Your task to perform on an android device: manage bookmarks in the chrome app Image 0: 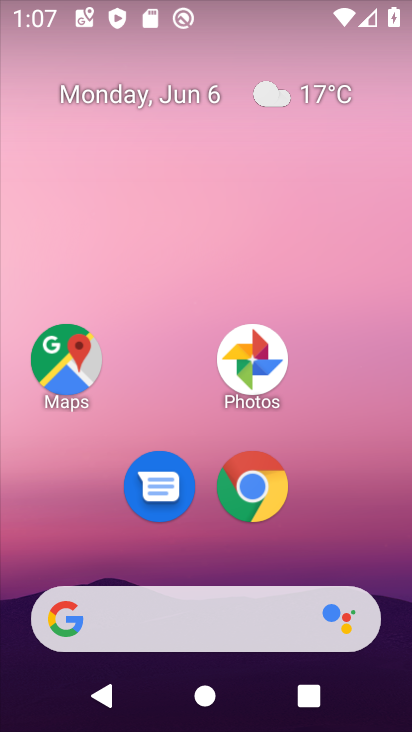
Step 0: click (260, 513)
Your task to perform on an android device: manage bookmarks in the chrome app Image 1: 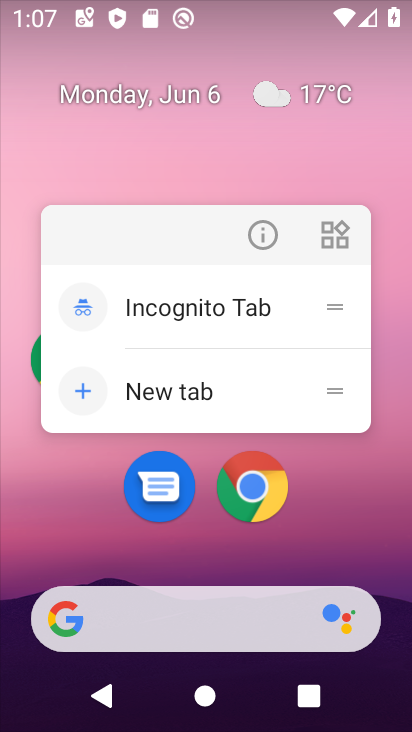
Step 1: click (264, 503)
Your task to perform on an android device: manage bookmarks in the chrome app Image 2: 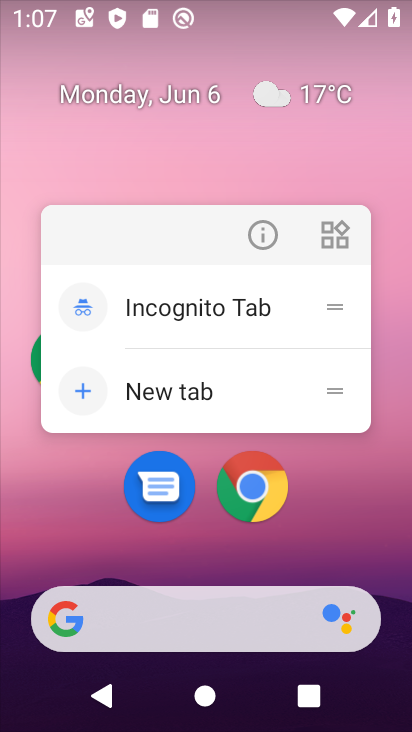
Step 2: click (267, 494)
Your task to perform on an android device: manage bookmarks in the chrome app Image 3: 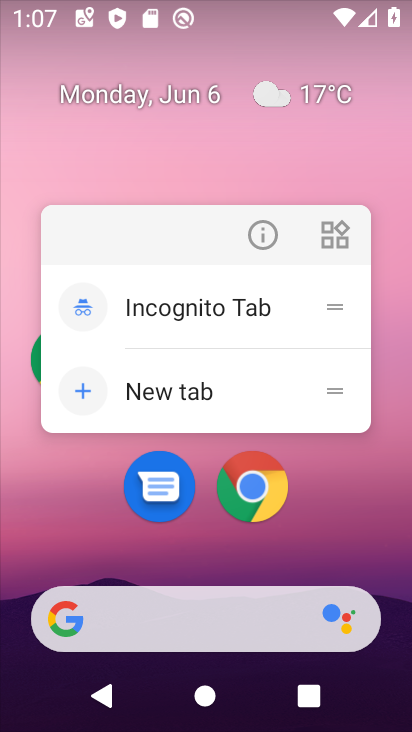
Step 3: click (272, 481)
Your task to perform on an android device: manage bookmarks in the chrome app Image 4: 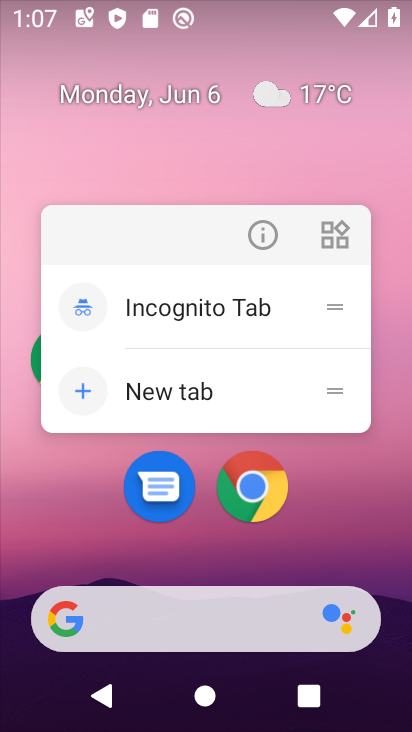
Step 4: click (248, 486)
Your task to perform on an android device: manage bookmarks in the chrome app Image 5: 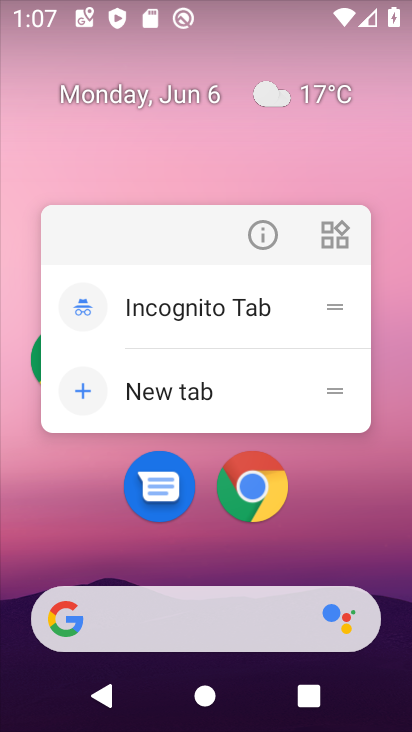
Step 5: click (249, 506)
Your task to perform on an android device: manage bookmarks in the chrome app Image 6: 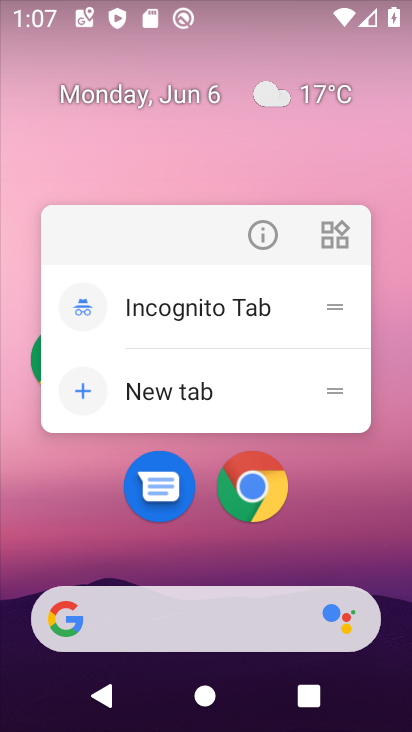
Step 6: click (250, 505)
Your task to perform on an android device: manage bookmarks in the chrome app Image 7: 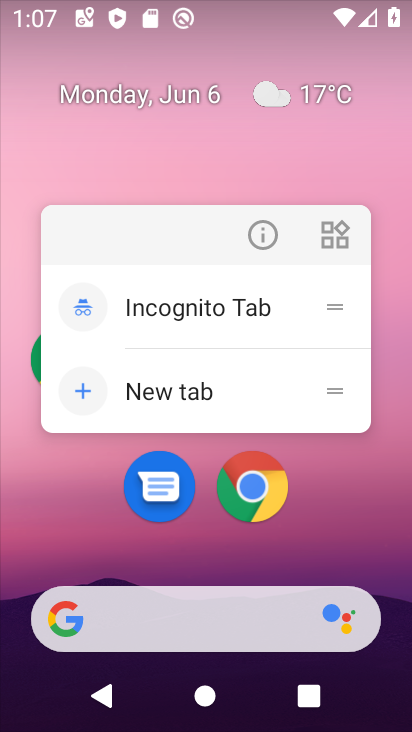
Step 7: click (264, 498)
Your task to perform on an android device: manage bookmarks in the chrome app Image 8: 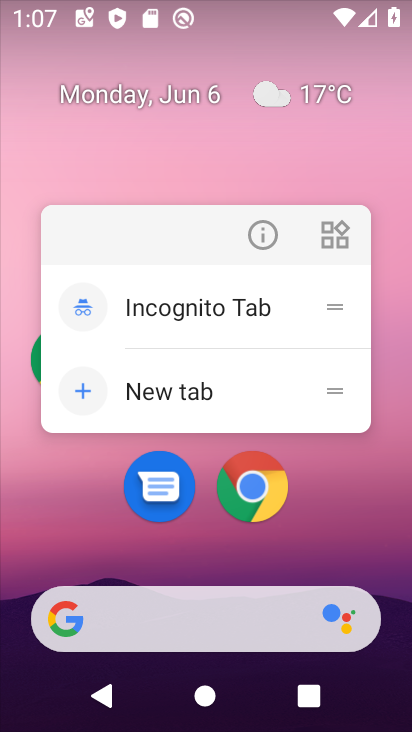
Step 8: click (275, 508)
Your task to perform on an android device: manage bookmarks in the chrome app Image 9: 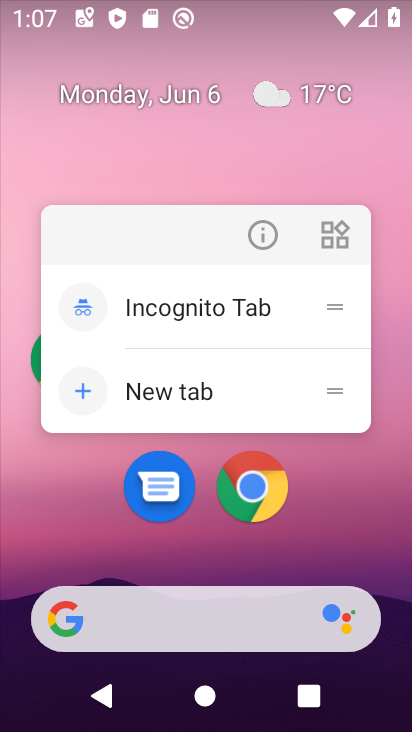
Step 9: click (274, 496)
Your task to perform on an android device: manage bookmarks in the chrome app Image 10: 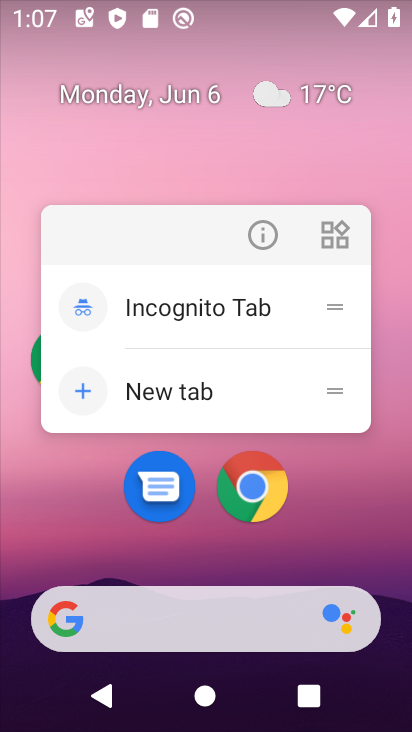
Step 10: click (264, 484)
Your task to perform on an android device: manage bookmarks in the chrome app Image 11: 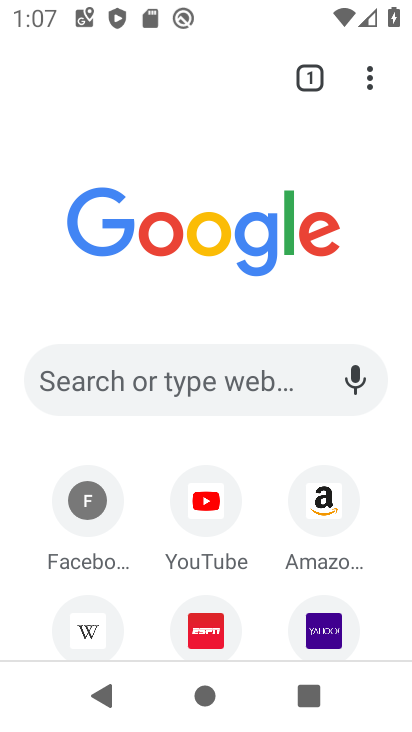
Step 11: drag from (381, 81) to (261, 323)
Your task to perform on an android device: manage bookmarks in the chrome app Image 12: 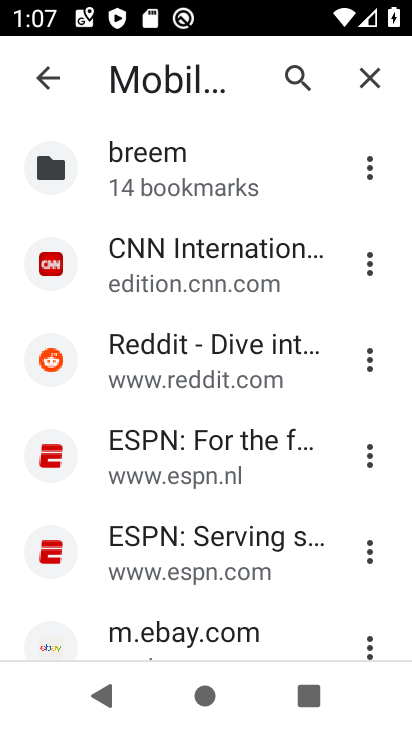
Step 12: click (237, 243)
Your task to perform on an android device: manage bookmarks in the chrome app Image 13: 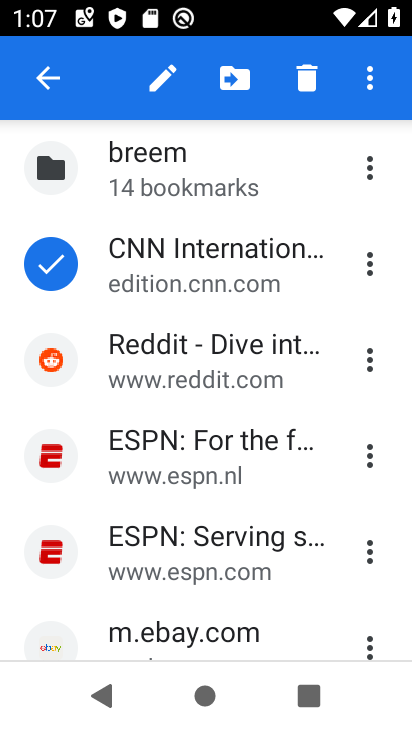
Step 13: click (188, 365)
Your task to perform on an android device: manage bookmarks in the chrome app Image 14: 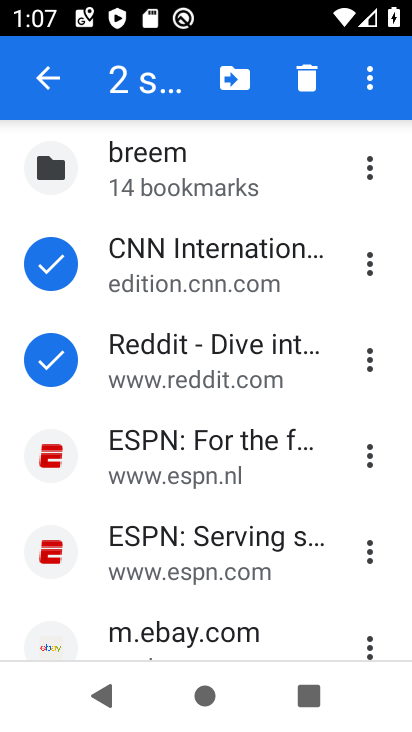
Step 14: click (195, 426)
Your task to perform on an android device: manage bookmarks in the chrome app Image 15: 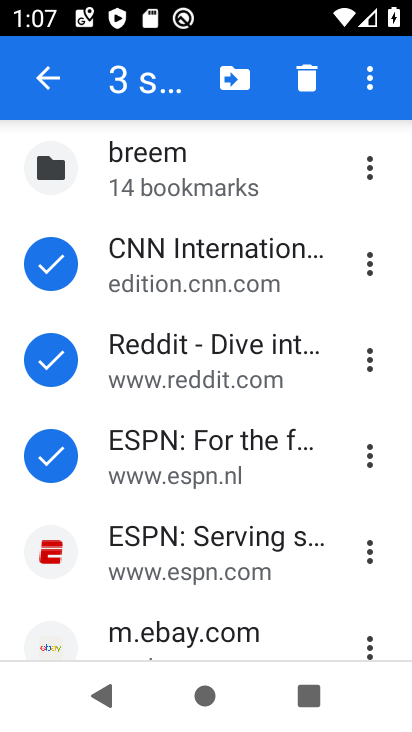
Step 15: click (184, 516)
Your task to perform on an android device: manage bookmarks in the chrome app Image 16: 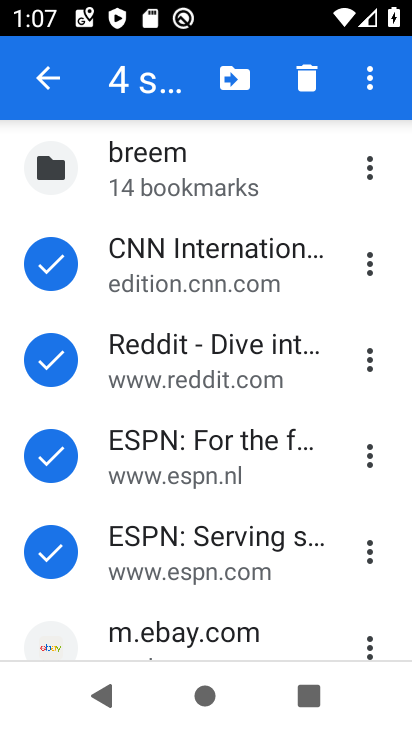
Step 16: drag from (161, 525) to (281, 179)
Your task to perform on an android device: manage bookmarks in the chrome app Image 17: 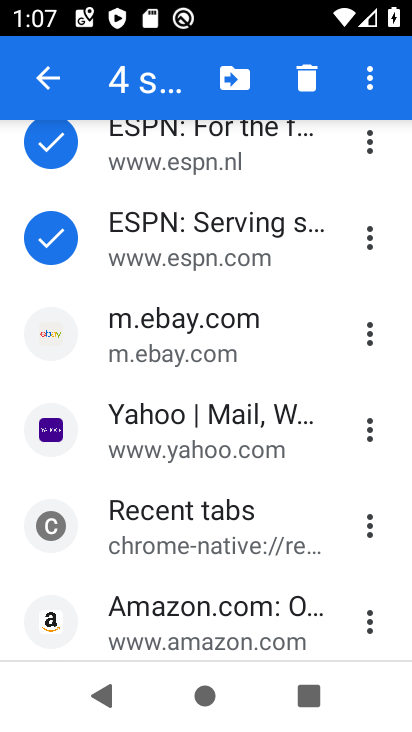
Step 17: click (198, 337)
Your task to perform on an android device: manage bookmarks in the chrome app Image 18: 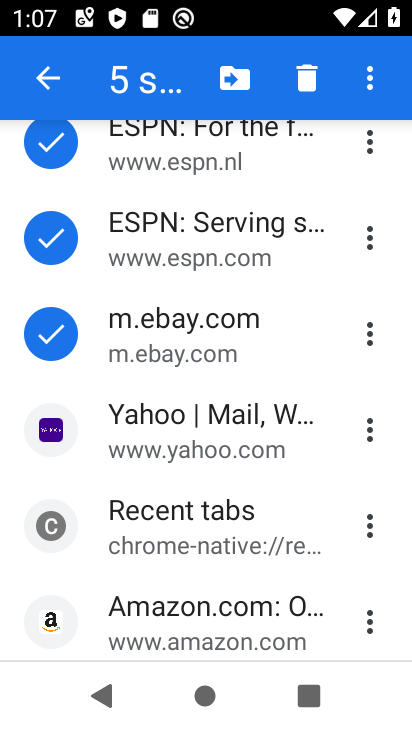
Step 18: click (187, 424)
Your task to perform on an android device: manage bookmarks in the chrome app Image 19: 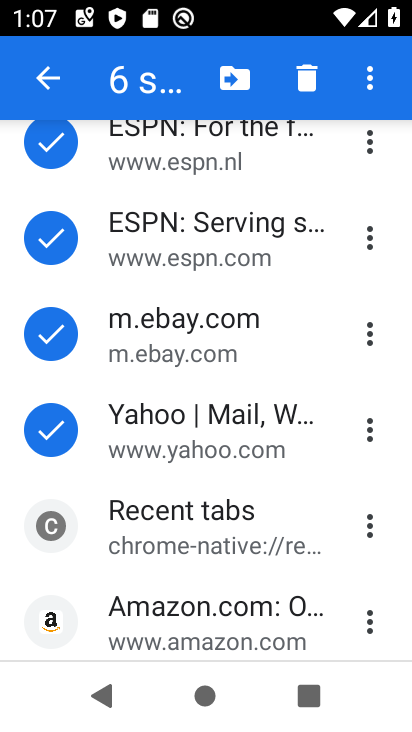
Step 19: click (182, 533)
Your task to perform on an android device: manage bookmarks in the chrome app Image 20: 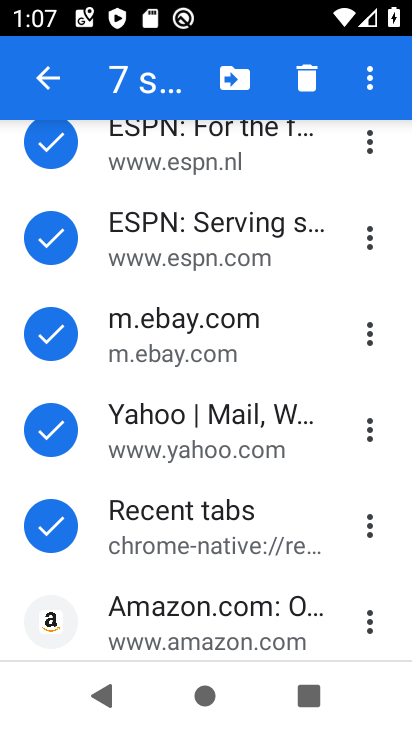
Step 20: click (184, 593)
Your task to perform on an android device: manage bookmarks in the chrome app Image 21: 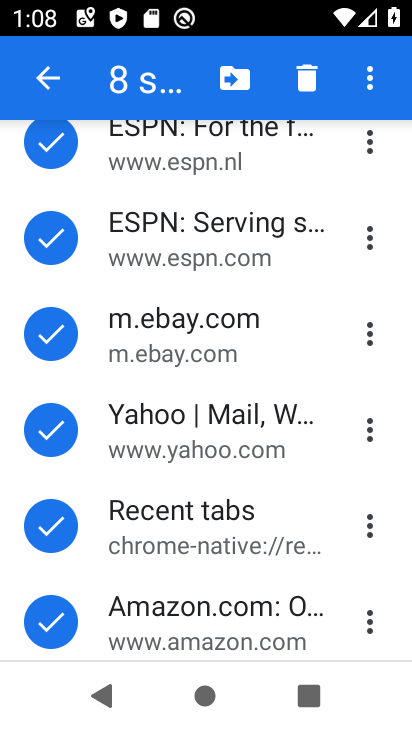
Step 21: drag from (186, 583) to (325, 74)
Your task to perform on an android device: manage bookmarks in the chrome app Image 22: 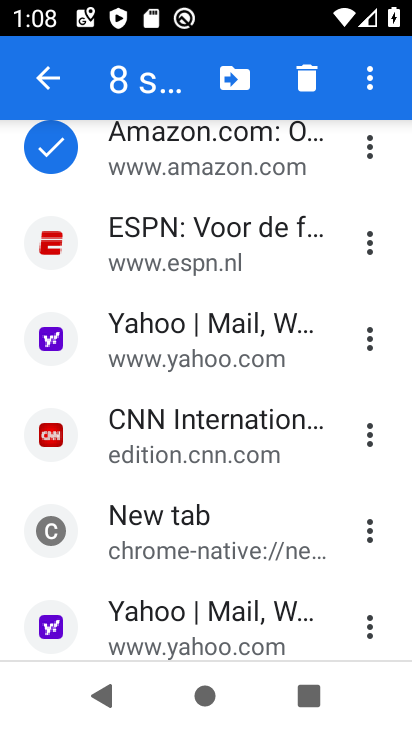
Step 22: click (181, 236)
Your task to perform on an android device: manage bookmarks in the chrome app Image 23: 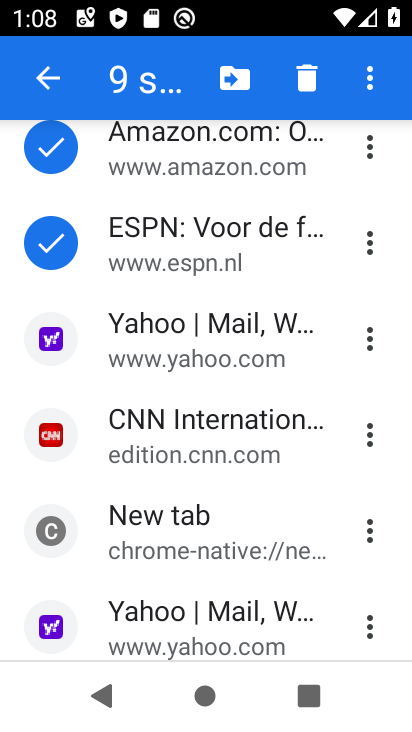
Step 23: click (176, 377)
Your task to perform on an android device: manage bookmarks in the chrome app Image 24: 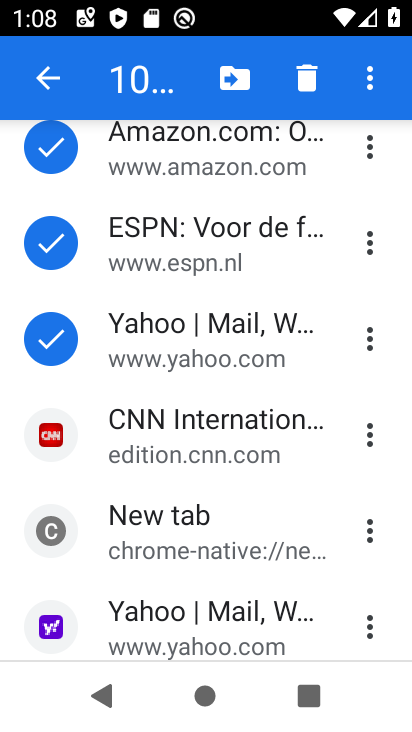
Step 24: click (177, 459)
Your task to perform on an android device: manage bookmarks in the chrome app Image 25: 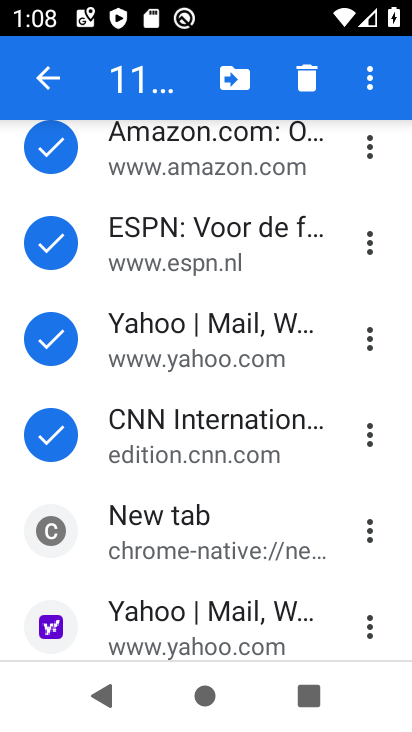
Step 25: click (183, 544)
Your task to perform on an android device: manage bookmarks in the chrome app Image 26: 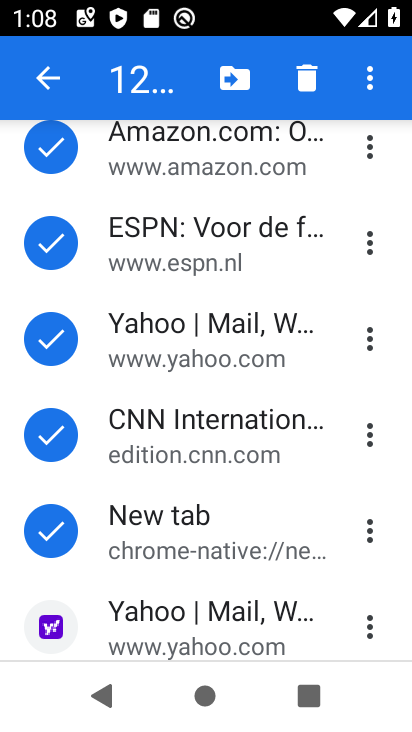
Step 26: click (178, 613)
Your task to perform on an android device: manage bookmarks in the chrome app Image 27: 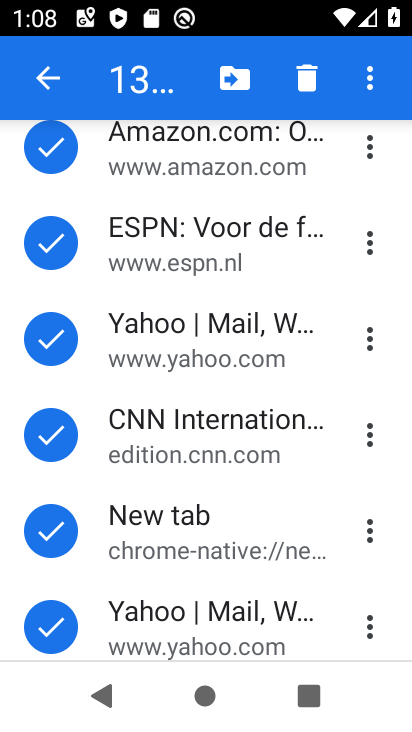
Step 27: drag from (178, 612) to (344, 42)
Your task to perform on an android device: manage bookmarks in the chrome app Image 28: 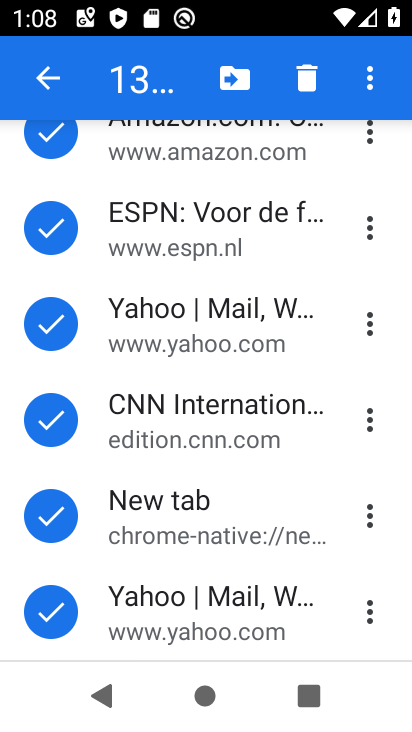
Step 28: click (216, 109)
Your task to perform on an android device: manage bookmarks in the chrome app Image 29: 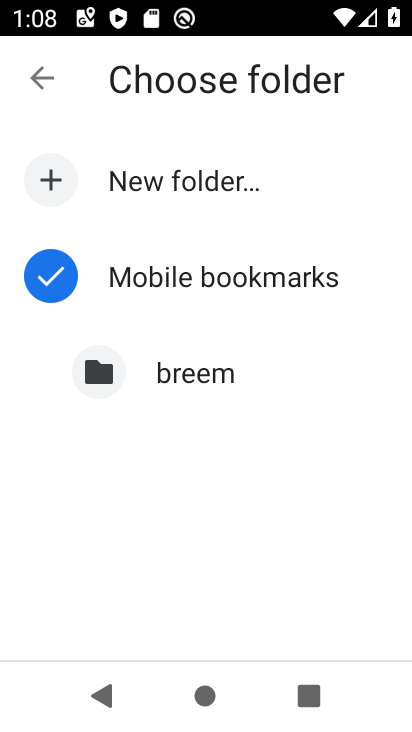
Step 29: click (232, 193)
Your task to perform on an android device: manage bookmarks in the chrome app Image 30: 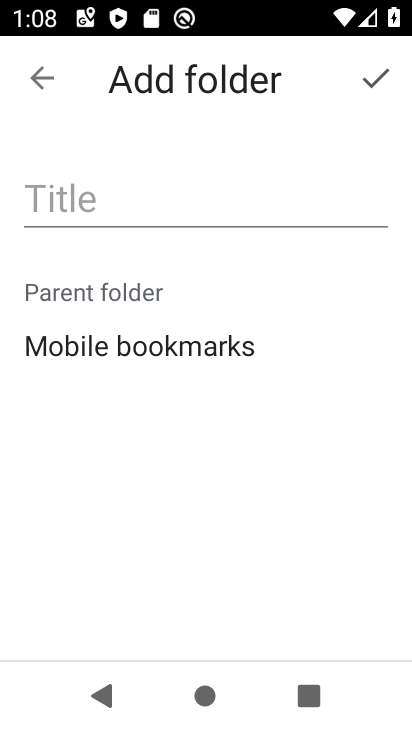
Step 30: type "gioiio"
Your task to perform on an android device: manage bookmarks in the chrome app Image 31: 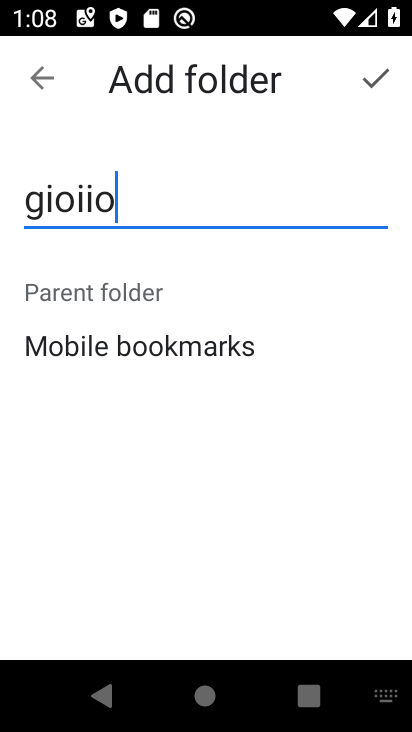
Step 31: click (398, 86)
Your task to perform on an android device: manage bookmarks in the chrome app Image 32: 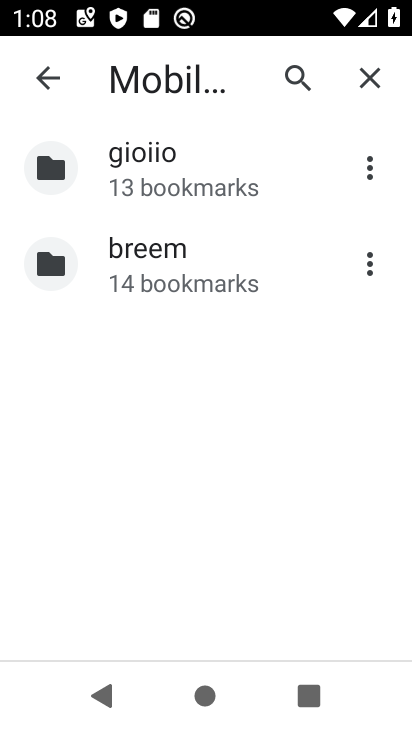
Step 32: task complete